Your task to perform on an android device: search for starred emails in the gmail app Image 0: 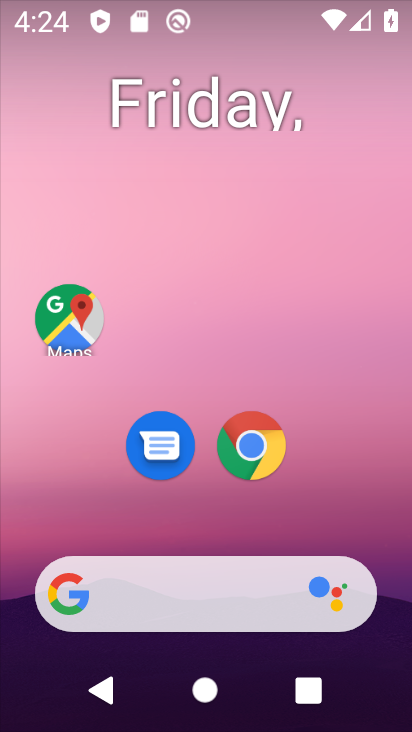
Step 0: drag from (346, 521) to (281, 102)
Your task to perform on an android device: search for starred emails in the gmail app Image 1: 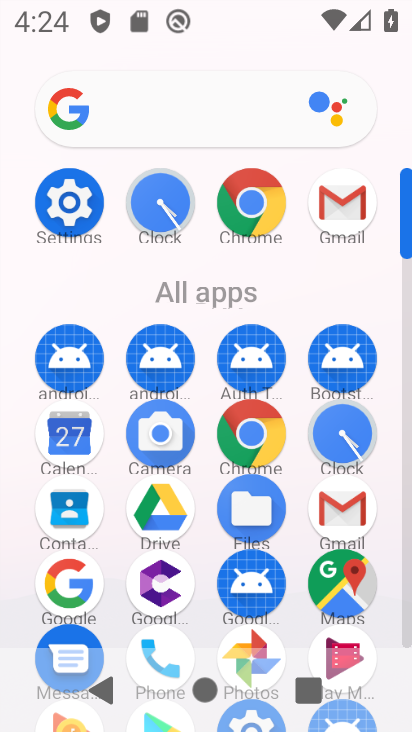
Step 1: click (342, 195)
Your task to perform on an android device: search for starred emails in the gmail app Image 2: 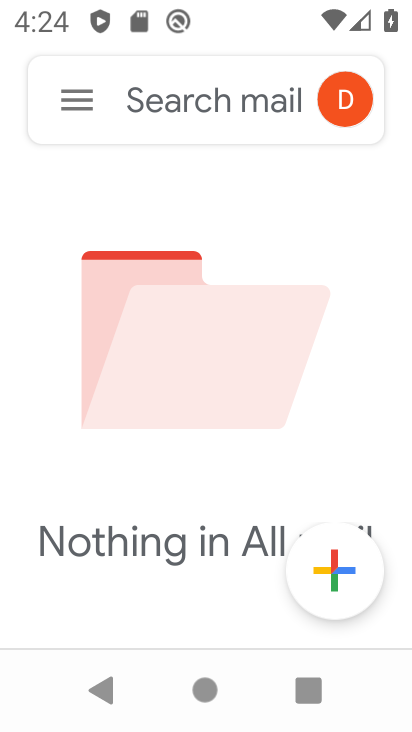
Step 2: click (69, 105)
Your task to perform on an android device: search for starred emails in the gmail app Image 3: 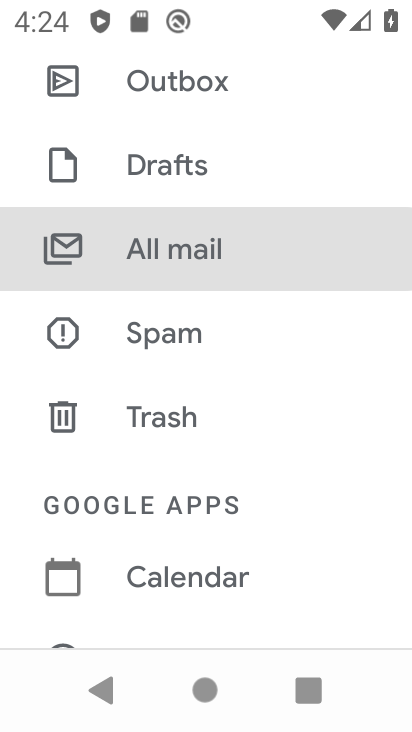
Step 3: drag from (304, 136) to (264, 595)
Your task to perform on an android device: search for starred emails in the gmail app Image 4: 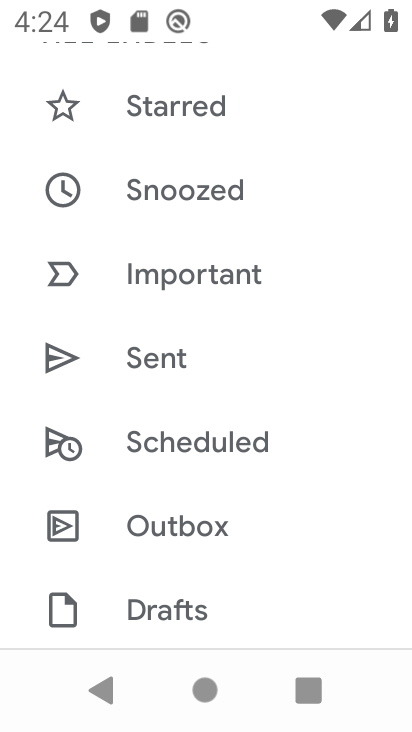
Step 4: click (189, 112)
Your task to perform on an android device: search for starred emails in the gmail app Image 5: 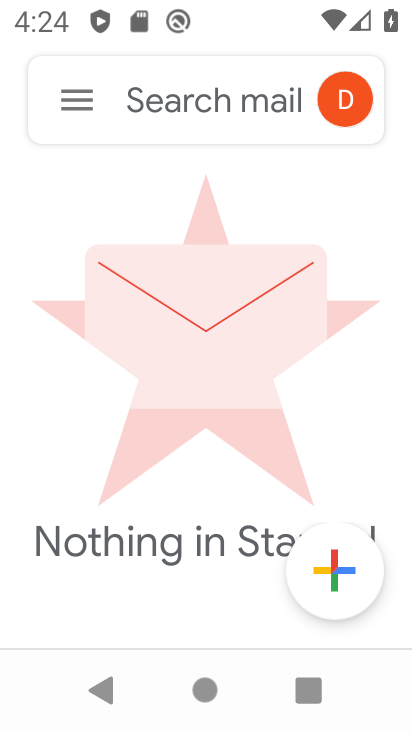
Step 5: task complete